Your task to perform on an android device: Open settings Image 0: 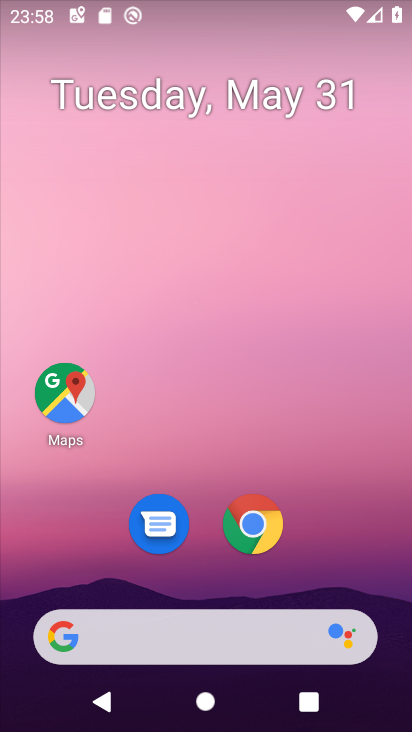
Step 0: drag from (356, 505) to (265, 0)
Your task to perform on an android device: Open settings Image 1: 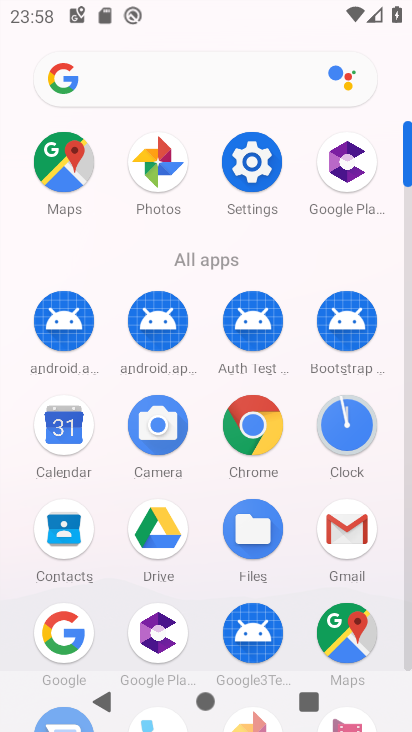
Step 1: click (251, 174)
Your task to perform on an android device: Open settings Image 2: 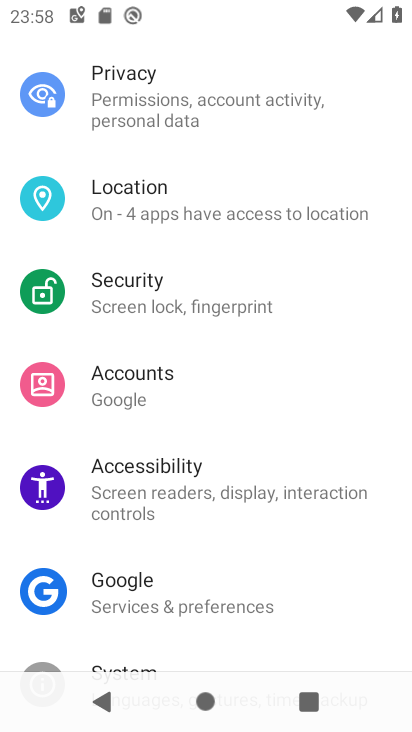
Step 2: task complete